Your task to perform on an android device: make emails show in primary in the gmail app Image 0: 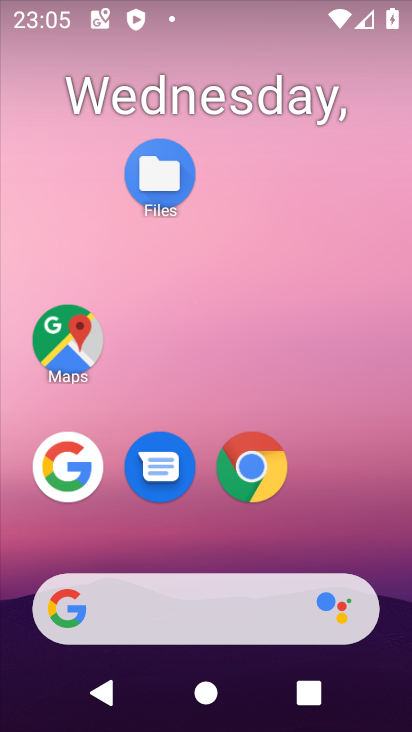
Step 0: click (59, 47)
Your task to perform on an android device: make emails show in primary in the gmail app Image 1: 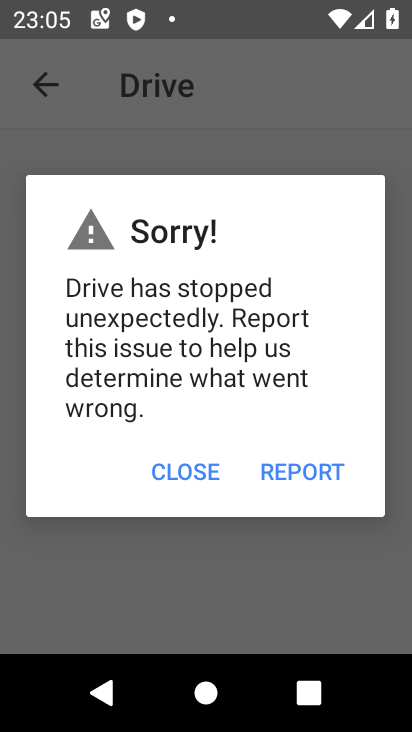
Step 1: press home button
Your task to perform on an android device: make emails show in primary in the gmail app Image 2: 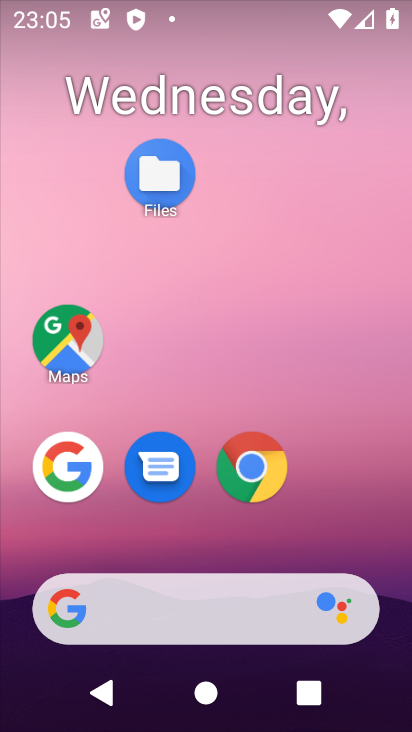
Step 2: drag from (199, 554) to (351, 43)
Your task to perform on an android device: make emails show in primary in the gmail app Image 3: 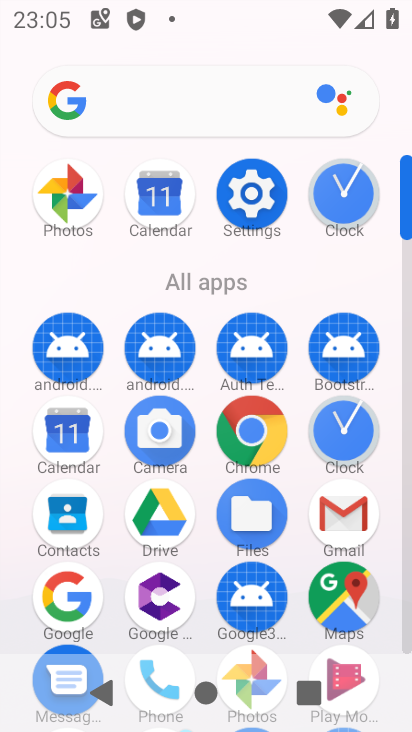
Step 3: click (334, 518)
Your task to perform on an android device: make emails show in primary in the gmail app Image 4: 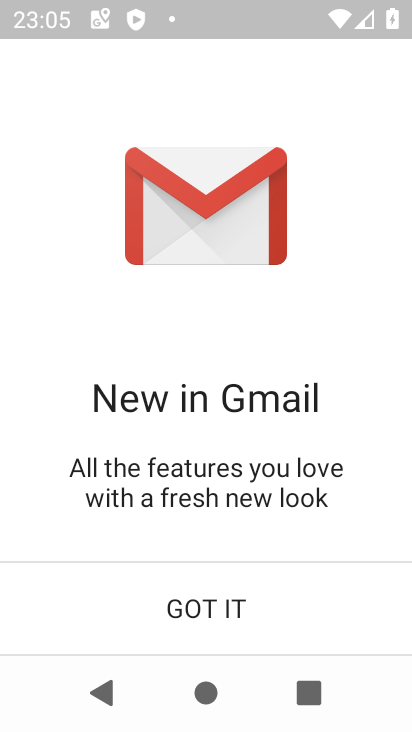
Step 4: click (245, 589)
Your task to perform on an android device: make emails show in primary in the gmail app Image 5: 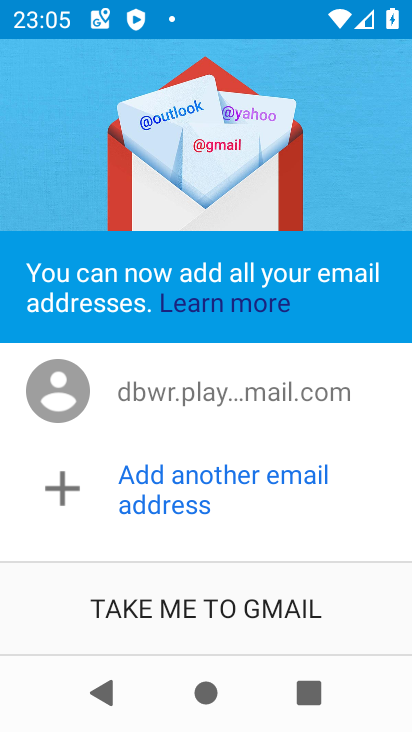
Step 5: click (245, 589)
Your task to perform on an android device: make emails show in primary in the gmail app Image 6: 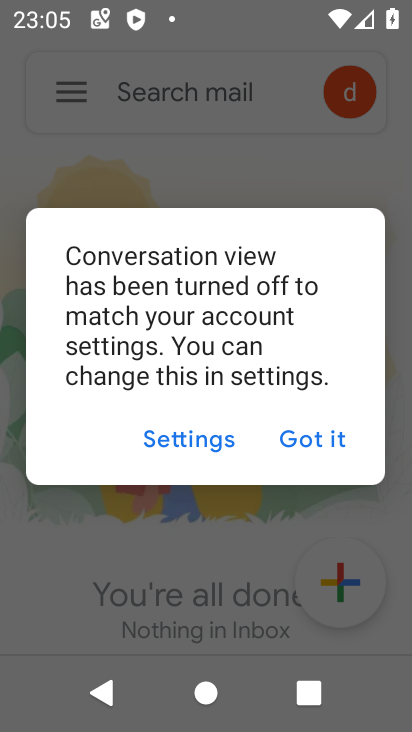
Step 6: click (308, 446)
Your task to perform on an android device: make emails show in primary in the gmail app Image 7: 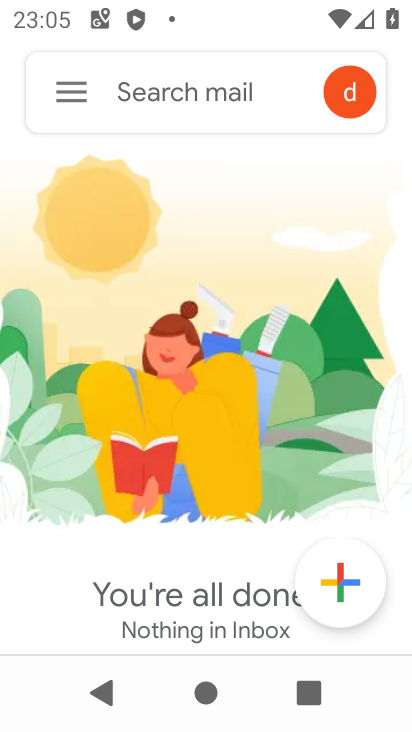
Step 7: click (79, 96)
Your task to perform on an android device: make emails show in primary in the gmail app Image 8: 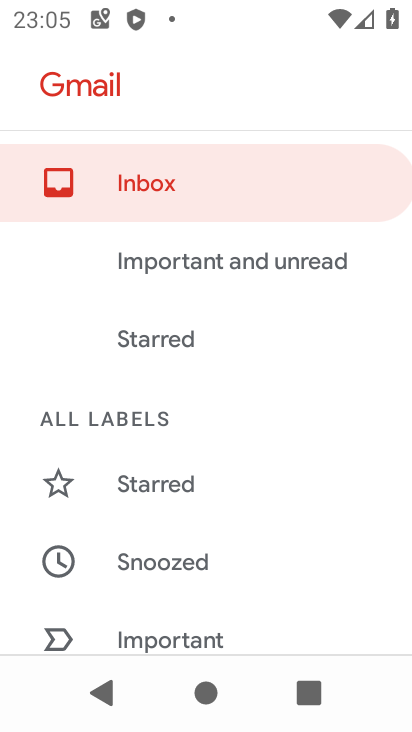
Step 8: drag from (159, 644) to (47, 188)
Your task to perform on an android device: make emails show in primary in the gmail app Image 9: 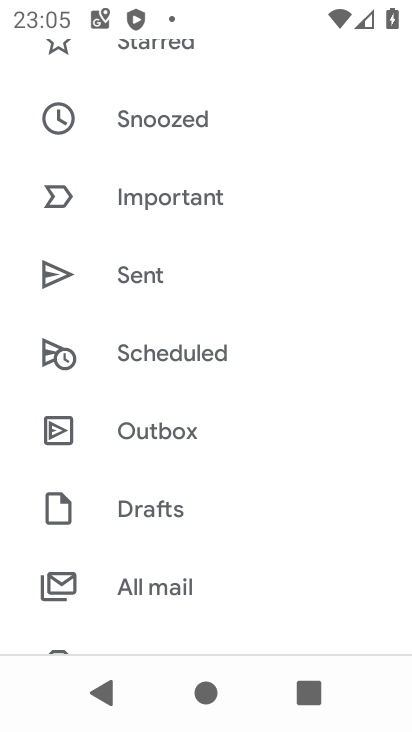
Step 9: drag from (124, 547) to (8, 98)
Your task to perform on an android device: make emails show in primary in the gmail app Image 10: 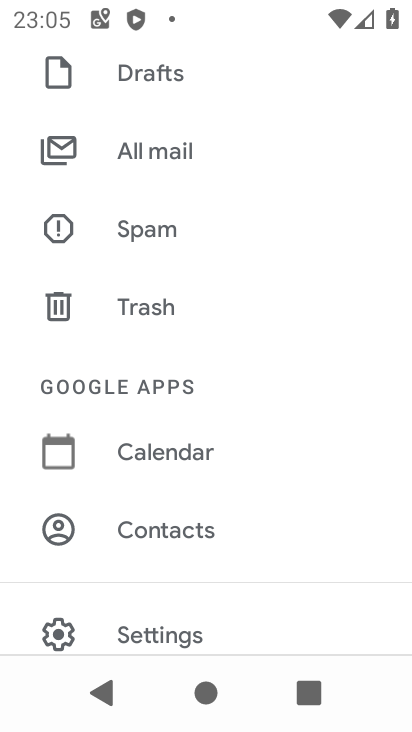
Step 10: click (162, 614)
Your task to perform on an android device: make emails show in primary in the gmail app Image 11: 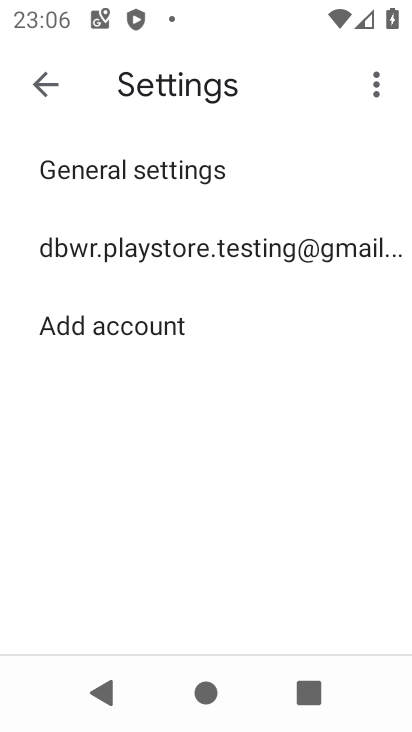
Step 11: click (330, 209)
Your task to perform on an android device: make emails show in primary in the gmail app Image 12: 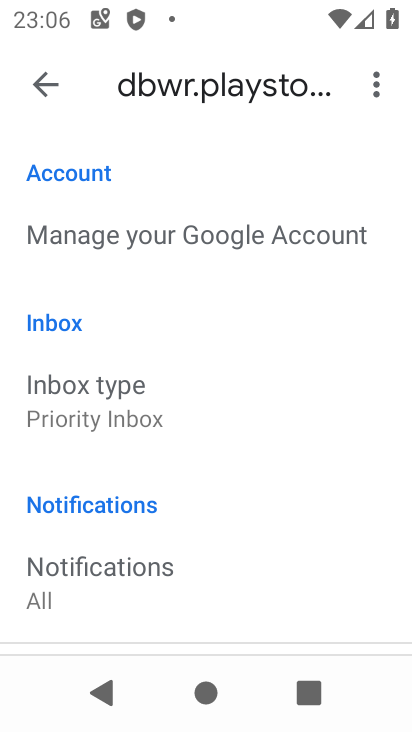
Step 12: click (74, 388)
Your task to perform on an android device: make emails show in primary in the gmail app Image 13: 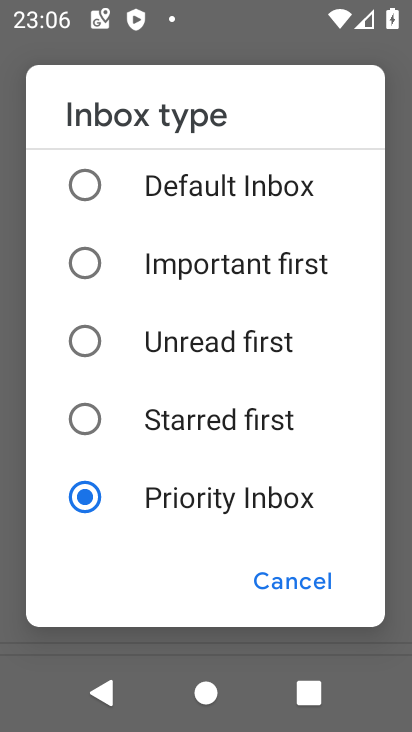
Step 13: click (100, 212)
Your task to perform on an android device: make emails show in primary in the gmail app Image 14: 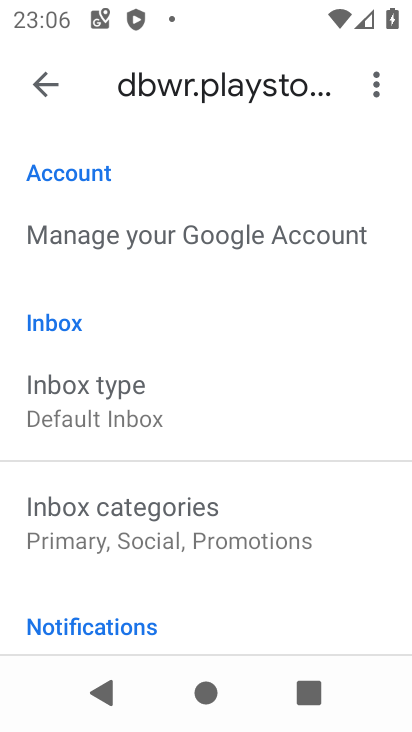
Step 14: click (52, 94)
Your task to perform on an android device: make emails show in primary in the gmail app Image 15: 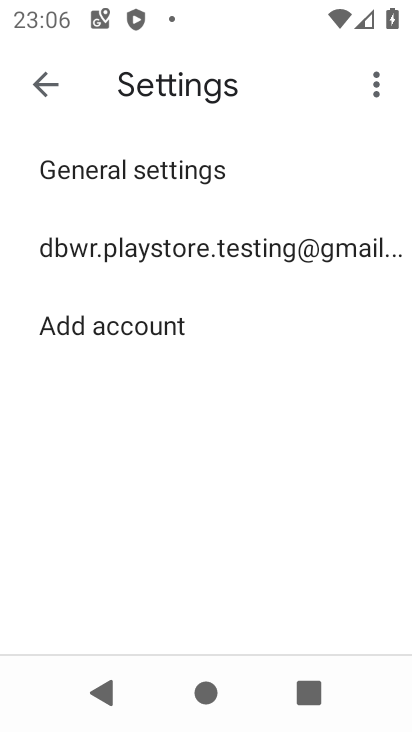
Step 15: click (52, 94)
Your task to perform on an android device: make emails show in primary in the gmail app Image 16: 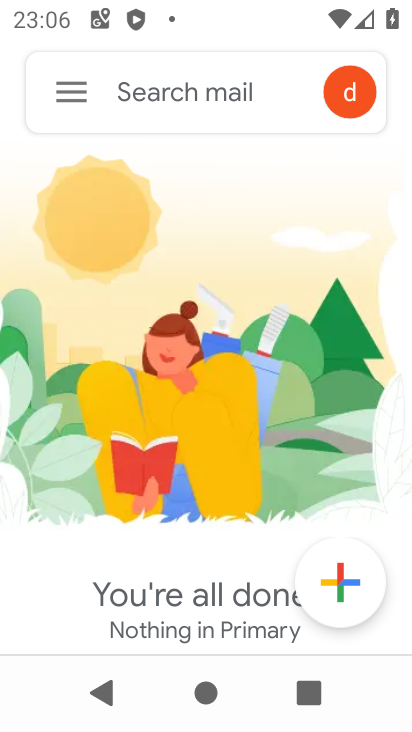
Step 16: task complete